Your task to perform on an android device: Go to settings Image 0: 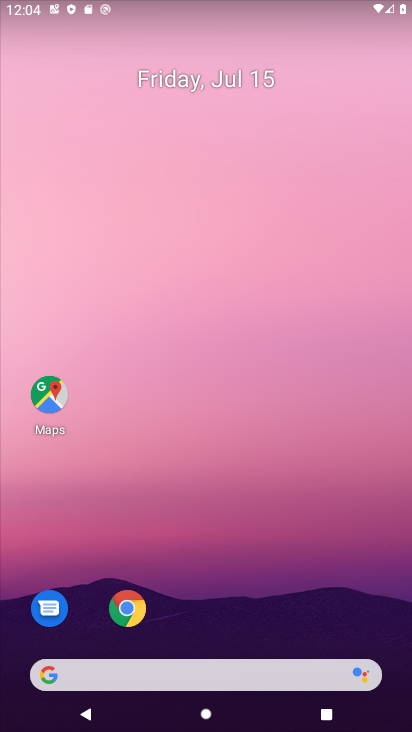
Step 0: drag from (202, 662) to (158, 42)
Your task to perform on an android device: Go to settings Image 1: 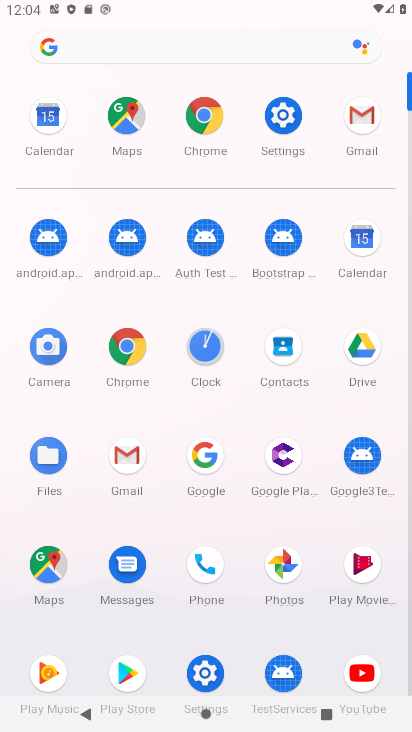
Step 1: click (290, 124)
Your task to perform on an android device: Go to settings Image 2: 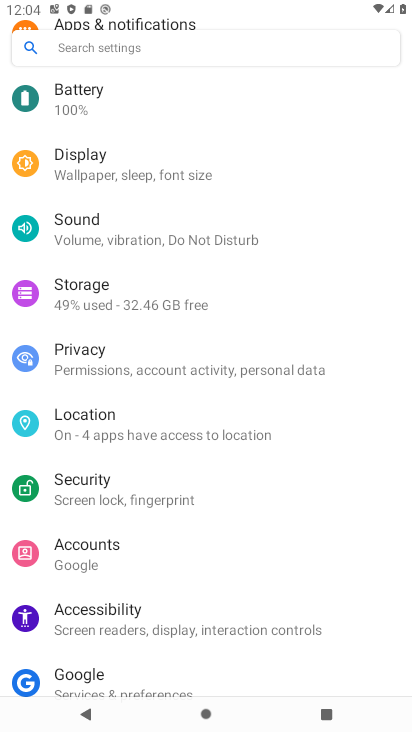
Step 2: task complete